Your task to perform on an android device: Go to calendar. Show me events next week Image 0: 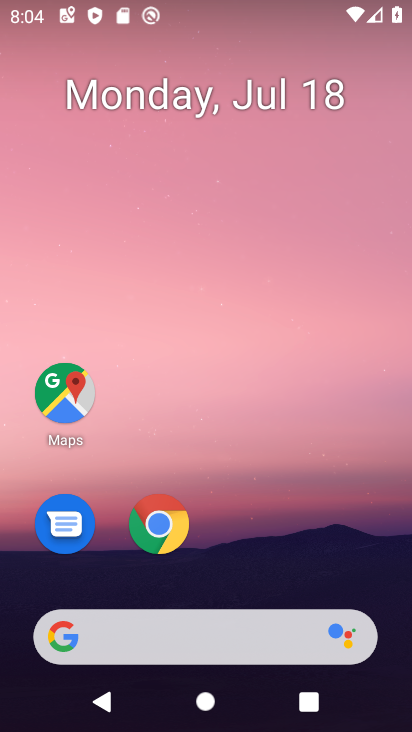
Step 0: drag from (264, 554) to (238, 108)
Your task to perform on an android device: Go to calendar. Show me events next week Image 1: 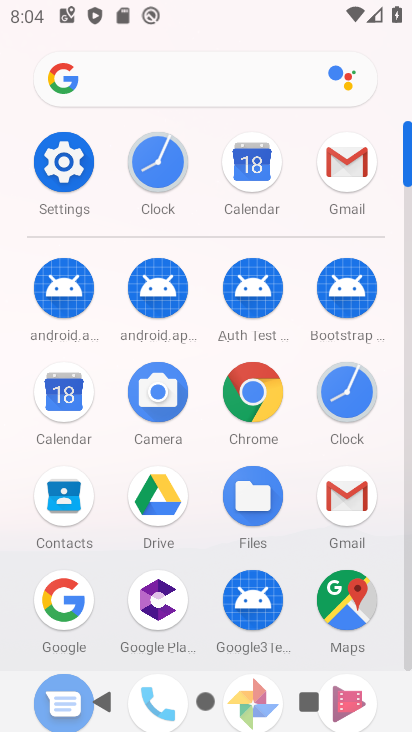
Step 1: click (244, 154)
Your task to perform on an android device: Go to calendar. Show me events next week Image 2: 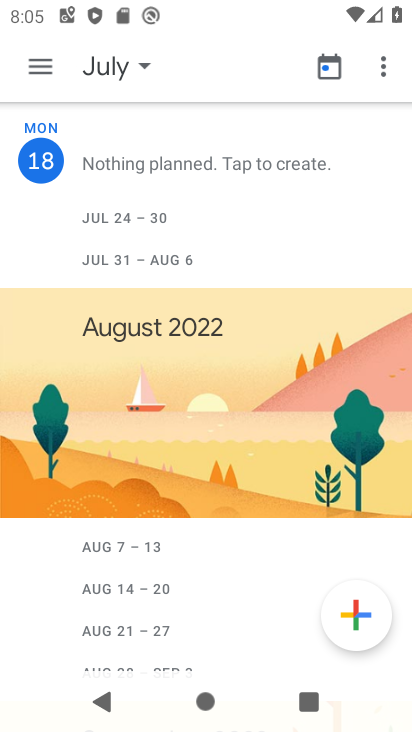
Step 2: click (42, 62)
Your task to perform on an android device: Go to calendar. Show me events next week Image 3: 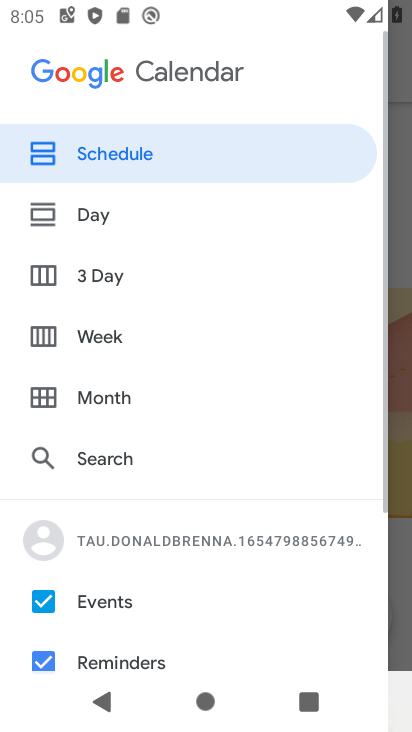
Step 3: click (35, 338)
Your task to perform on an android device: Go to calendar. Show me events next week Image 4: 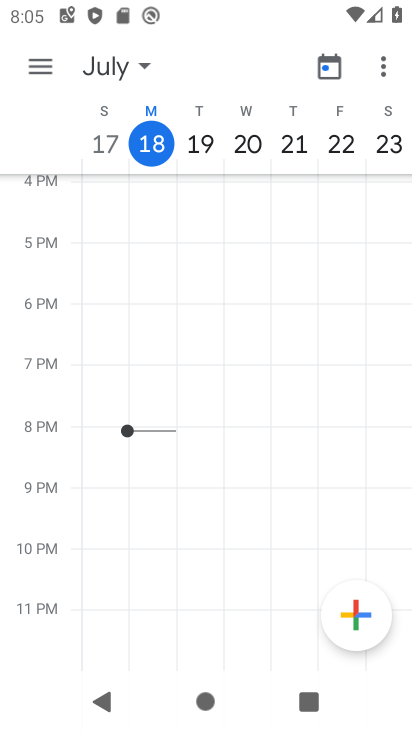
Step 4: task complete